Your task to perform on an android device: Go to accessibility settings Image 0: 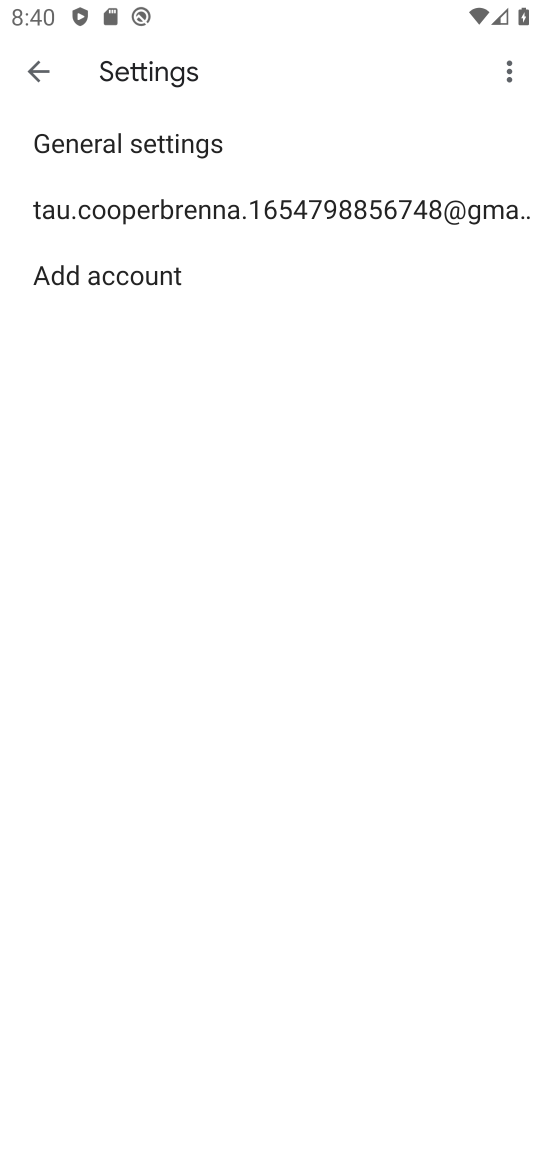
Step 0: press home button
Your task to perform on an android device: Go to accessibility settings Image 1: 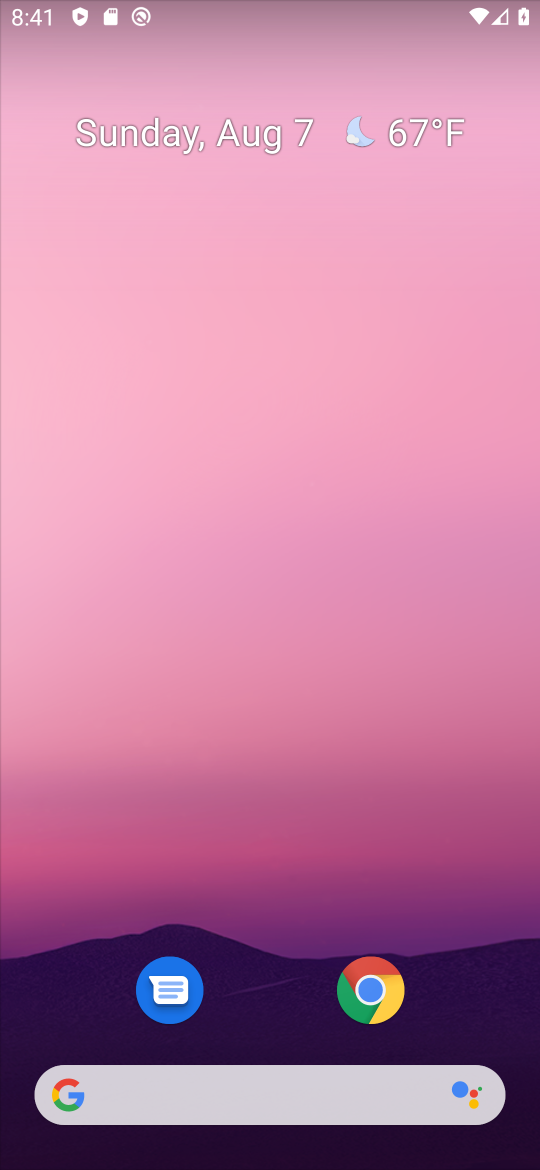
Step 1: drag from (311, 801) to (286, 3)
Your task to perform on an android device: Go to accessibility settings Image 2: 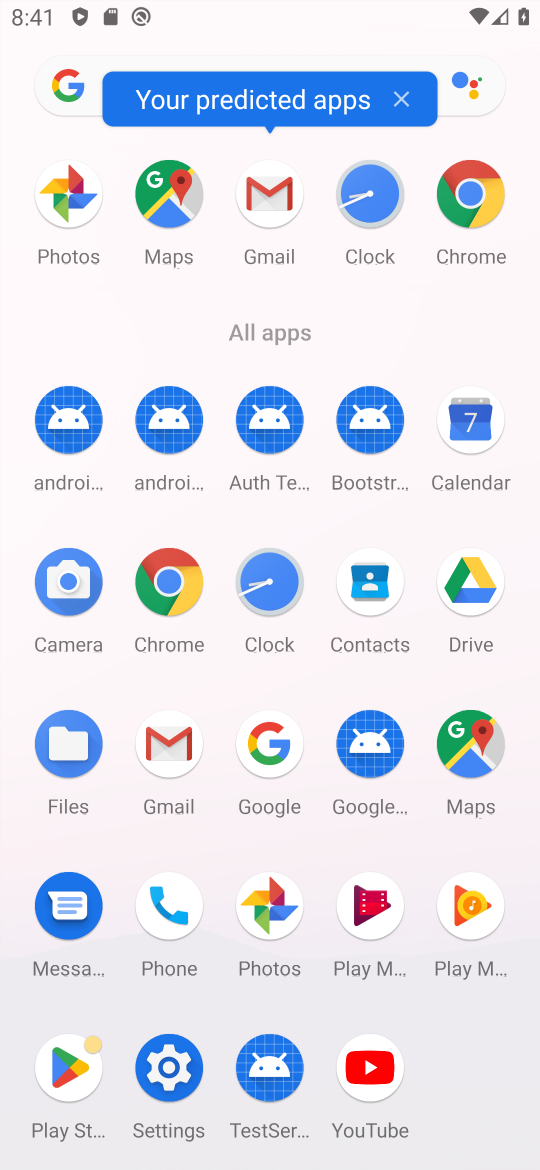
Step 2: click (169, 1061)
Your task to perform on an android device: Go to accessibility settings Image 3: 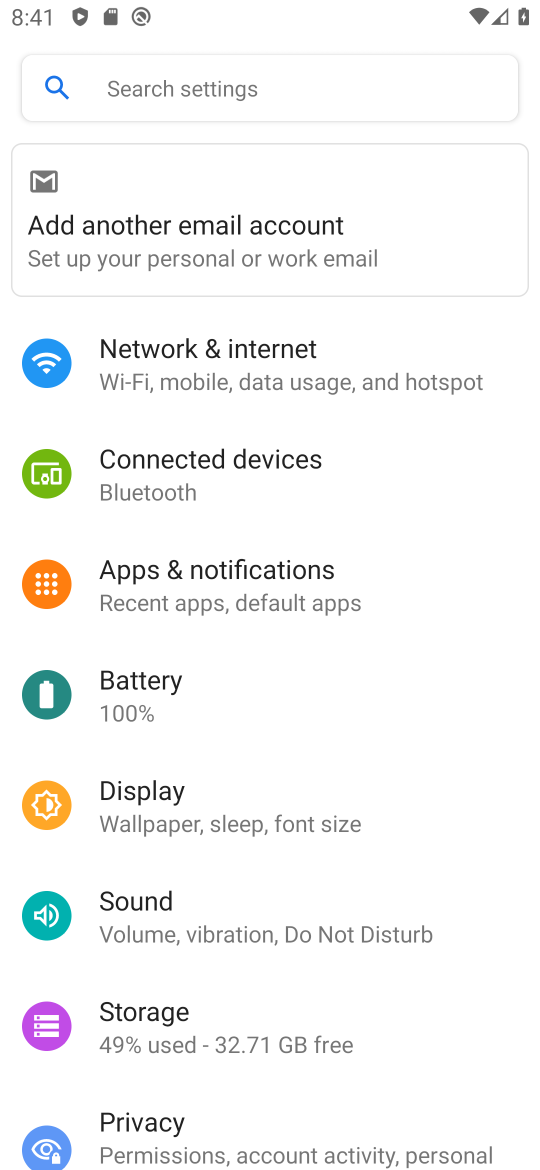
Step 3: drag from (430, 765) to (352, 4)
Your task to perform on an android device: Go to accessibility settings Image 4: 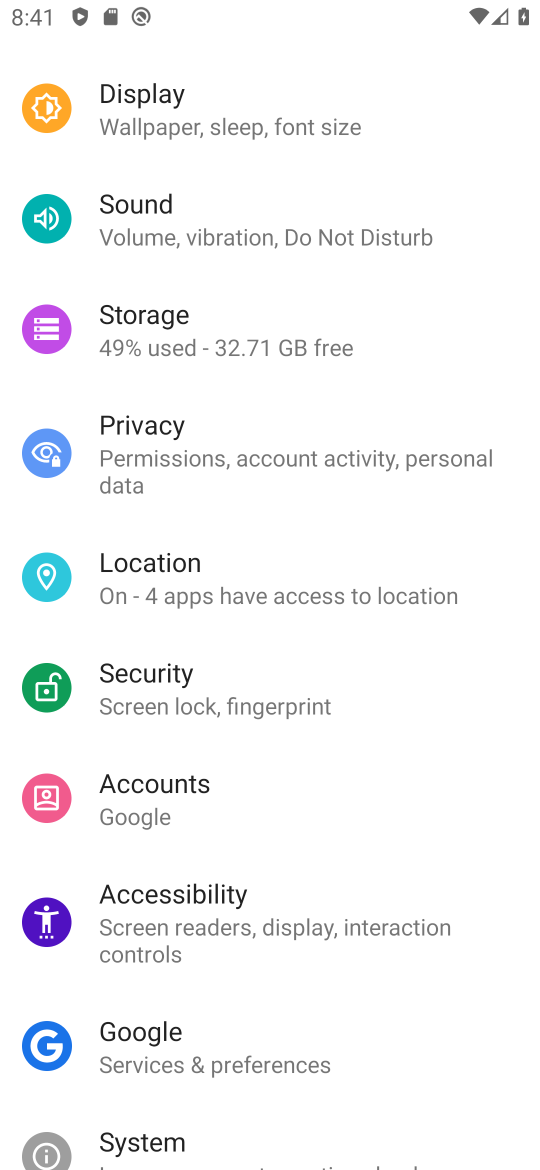
Step 4: click (338, 929)
Your task to perform on an android device: Go to accessibility settings Image 5: 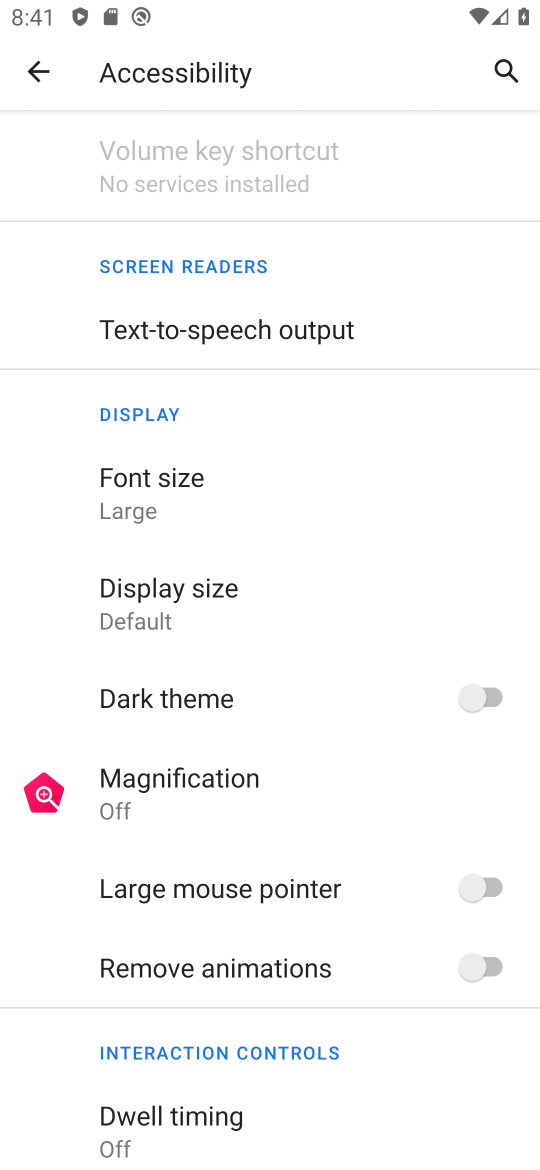
Step 5: task complete